Your task to perform on an android device: toggle data saver in the chrome app Image 0: 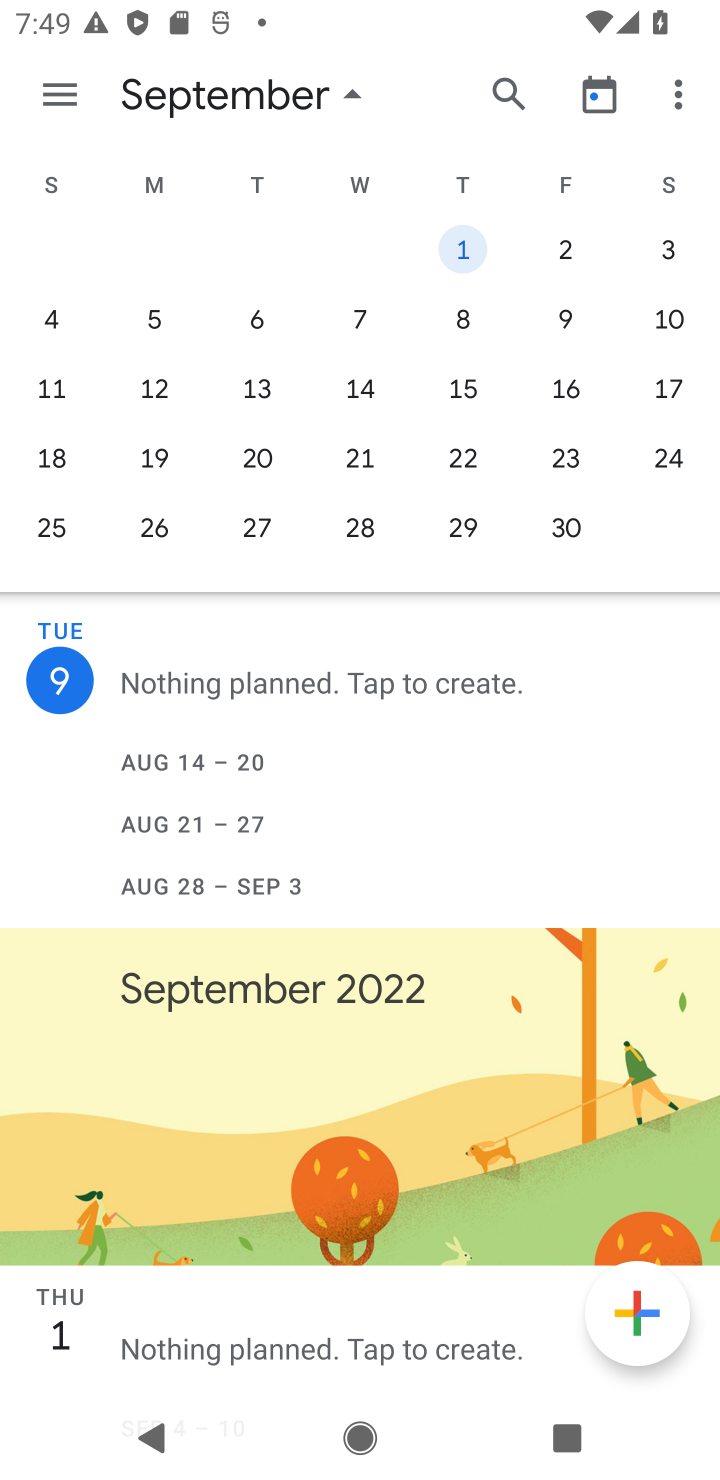
Step 0: press home button
Your task to perform on an android device: toggle data saver in the chrome app Image 1: 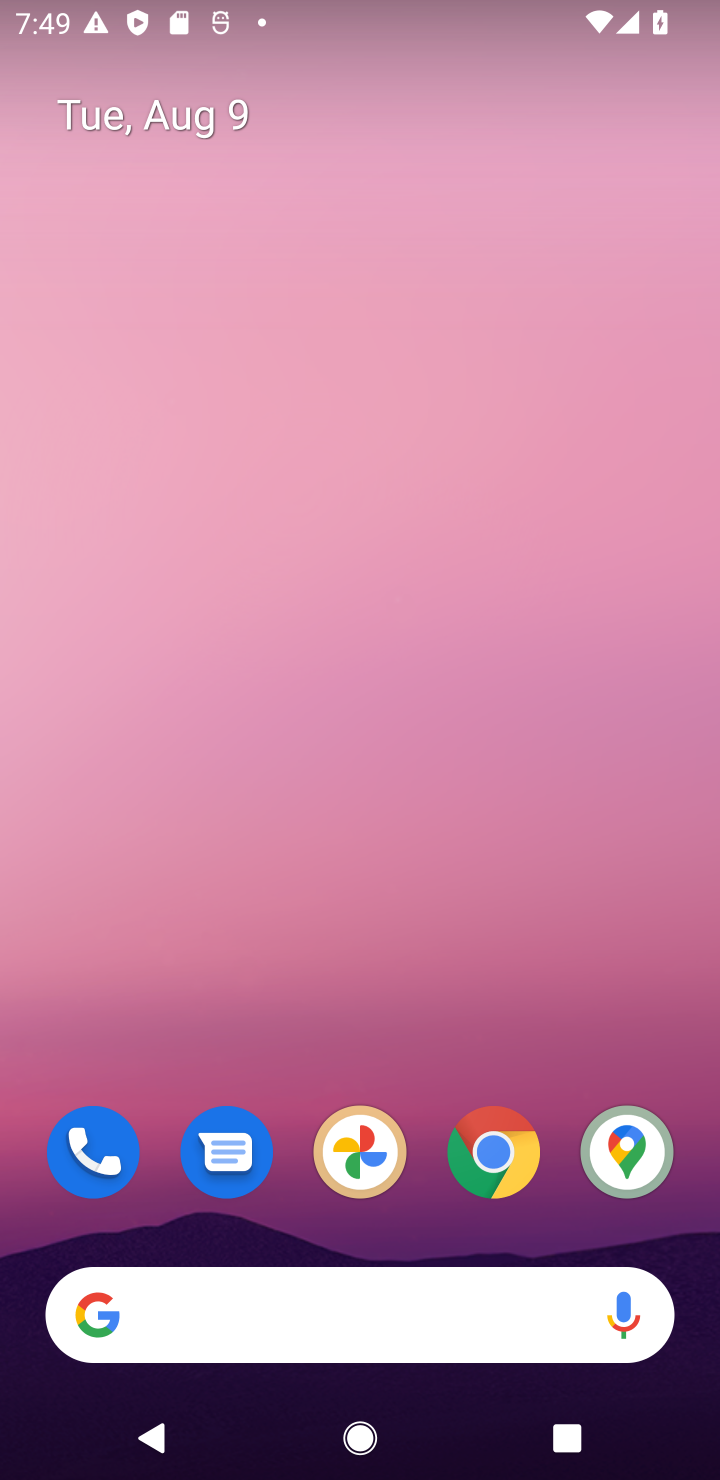
Step 1: click (481, 1153)
Your task to perform on an android device: toggle data saver in the chrome app Image 2: 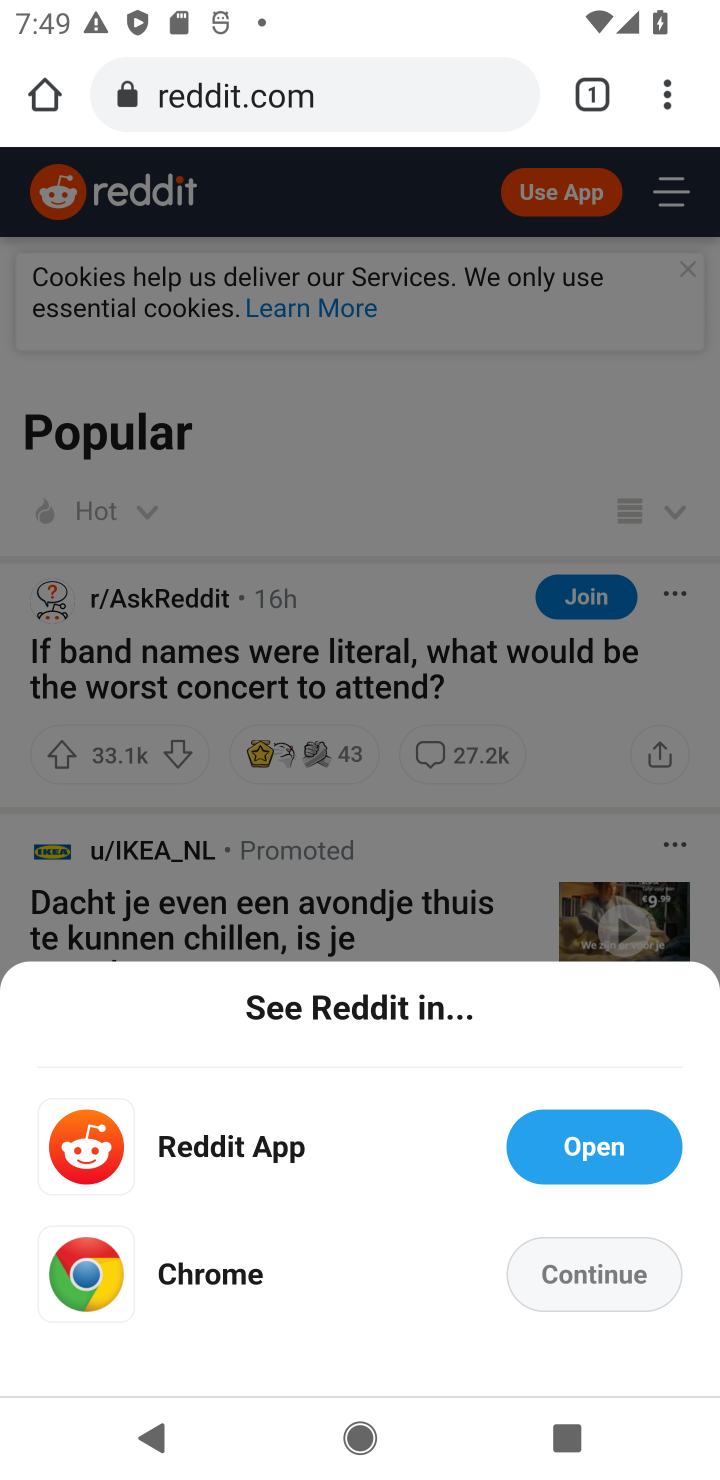
Step 2: click (682, 102)
Your task to perform on an android device: toggle data saver in the chrome app Image 3: 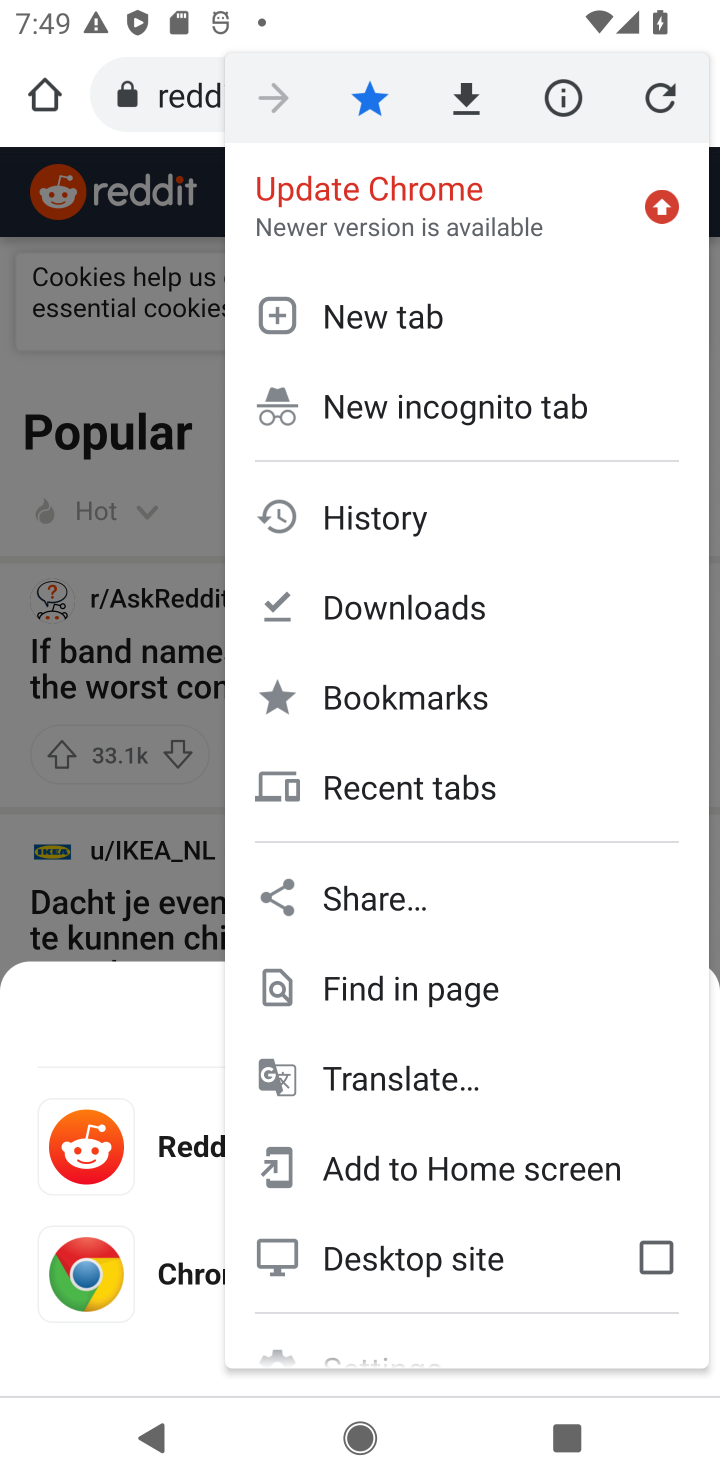
Step 3: drag from (436, 1220) to (575, 402)
Your task to perform on an android device: toggle data saver in the chrome app Image 4: 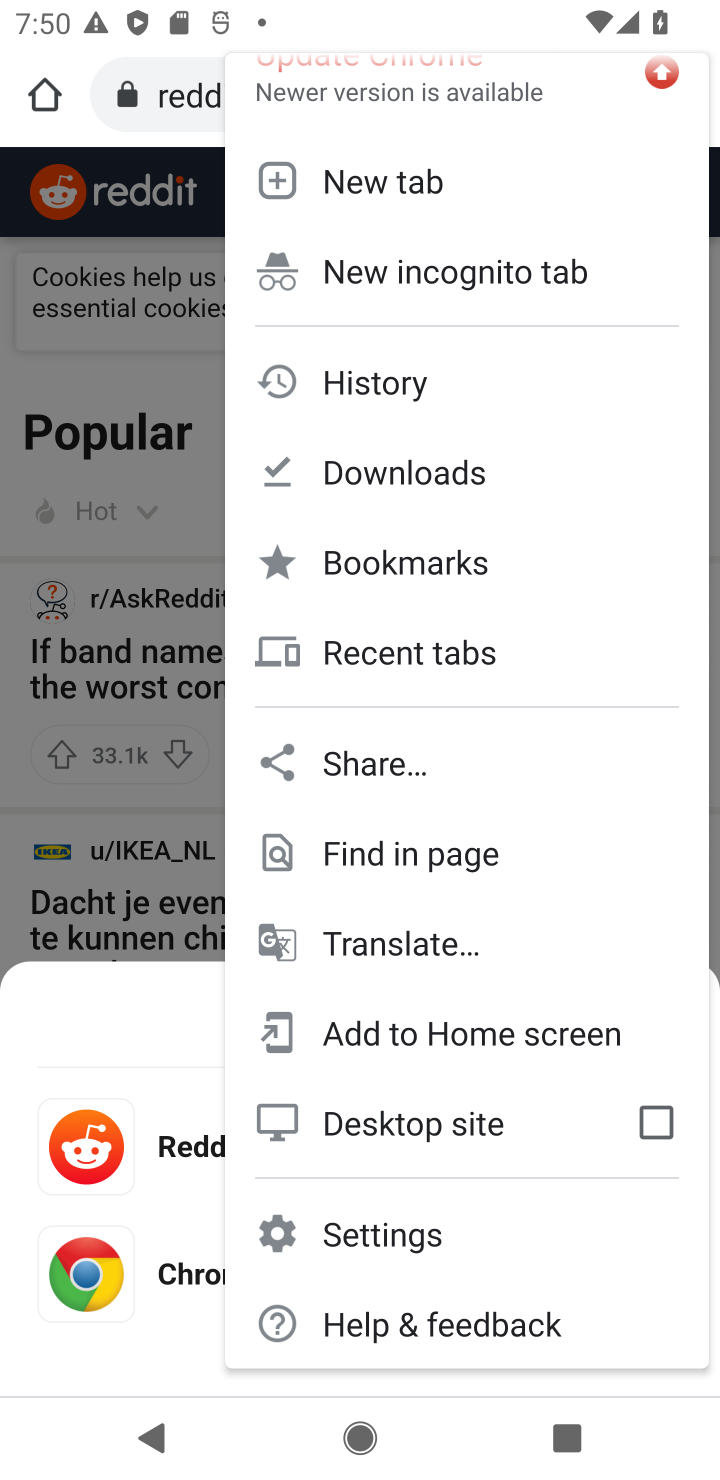
Step 4: click (480, 1236)
Your task to perform on an android device: toggle data saver in the chrome app Image 5: 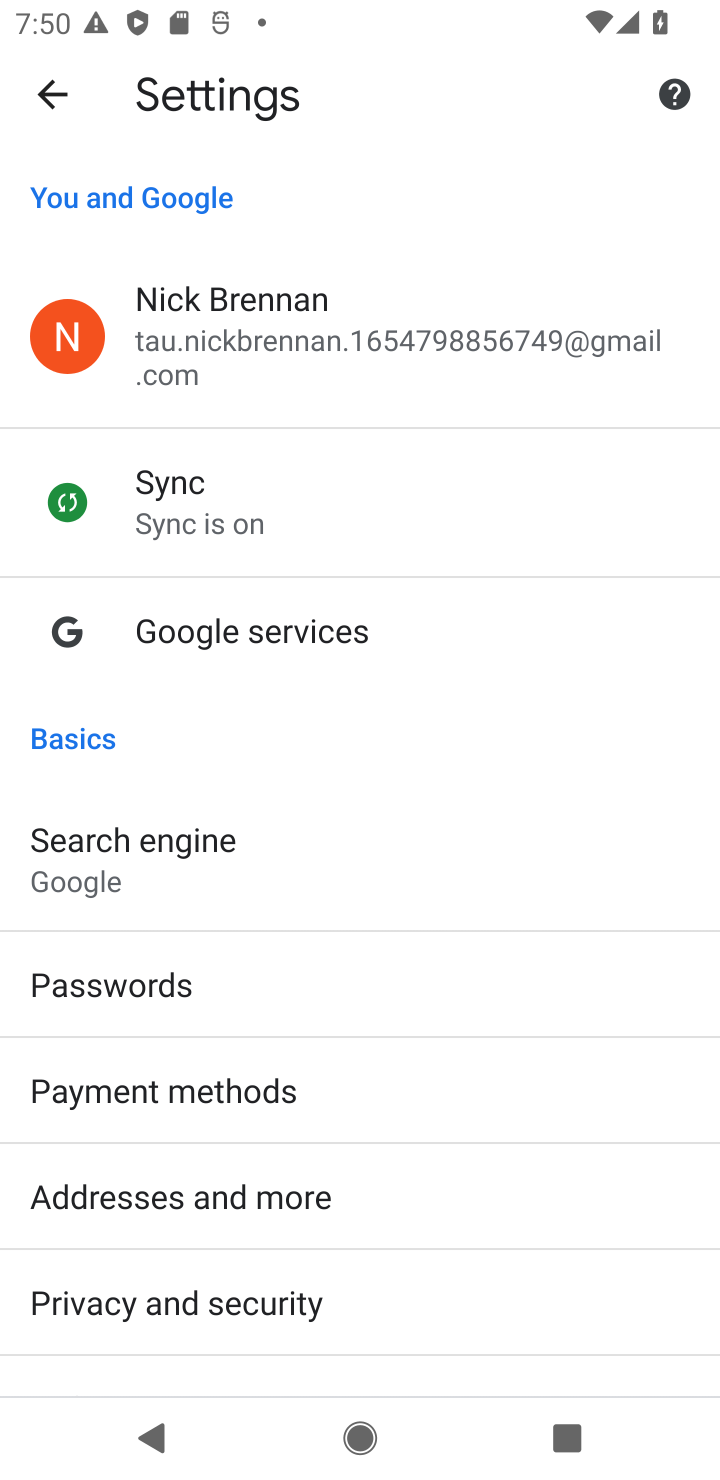
Step 5: drag from (322, 858) to (385, 145)
Your task to perform on an android device: toggle data saver in the chrome app Image 6: 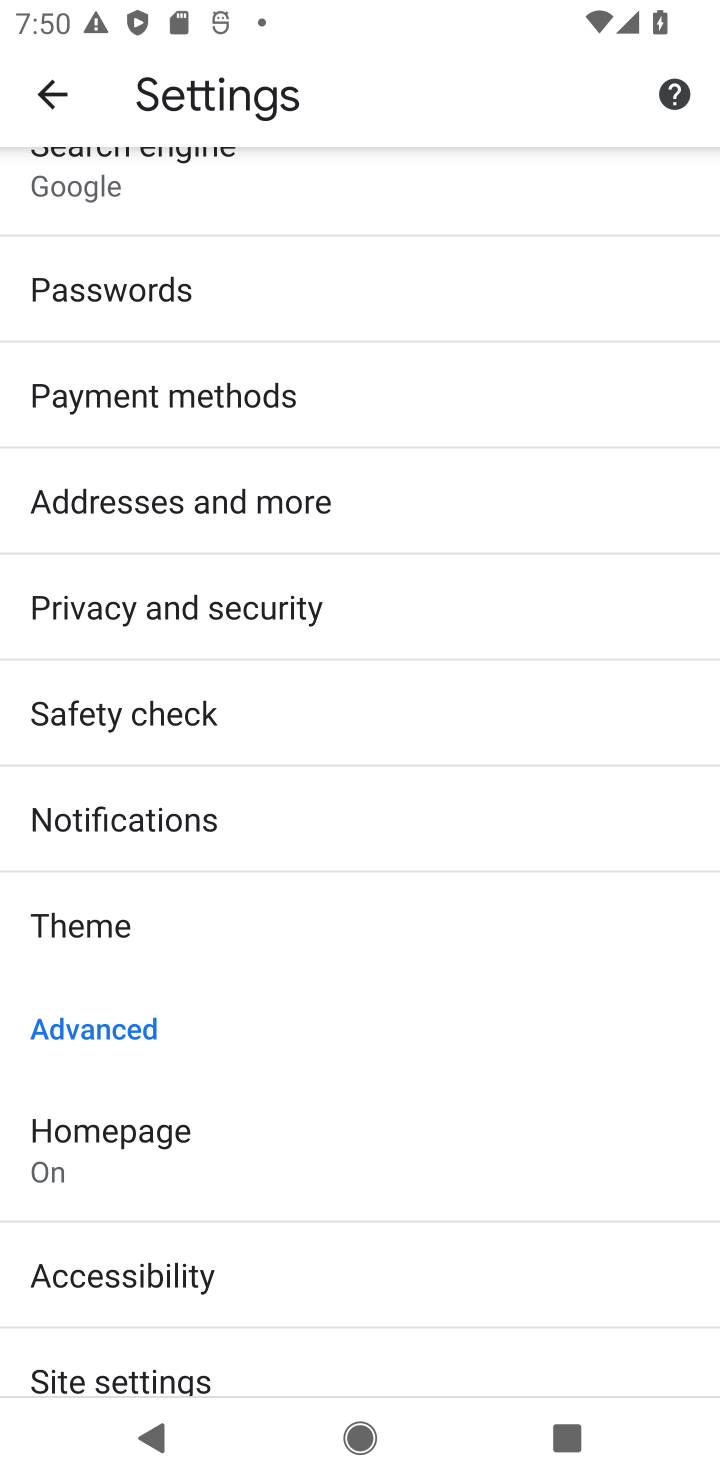
Step 6: drag from (263, 1348) to (334, 658)
Your task to perform on an android device: toggle data saver in the chrome app Image 7: 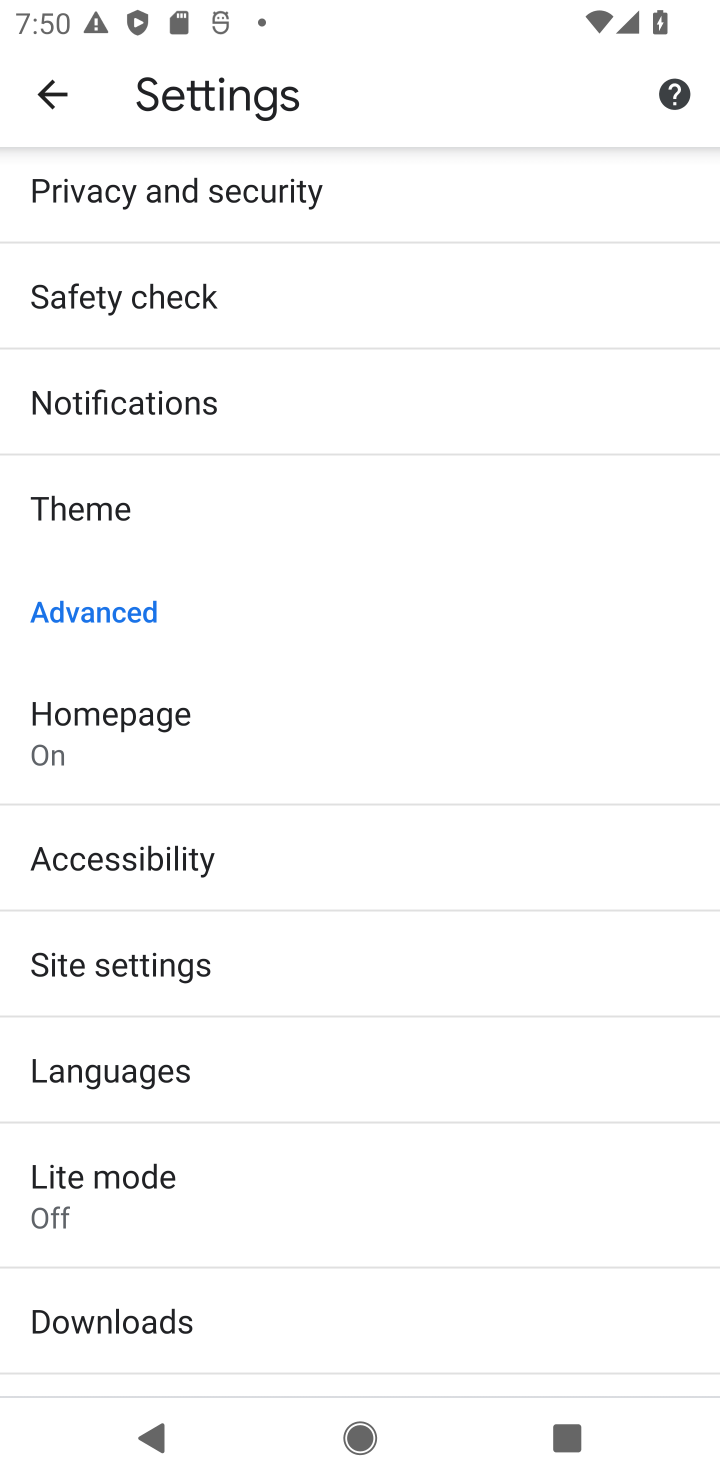
Step 7: drag from (216, 1247) to (377, 602)
Your task to perform on an android device: toggle data saver in the chrome app Image 8: 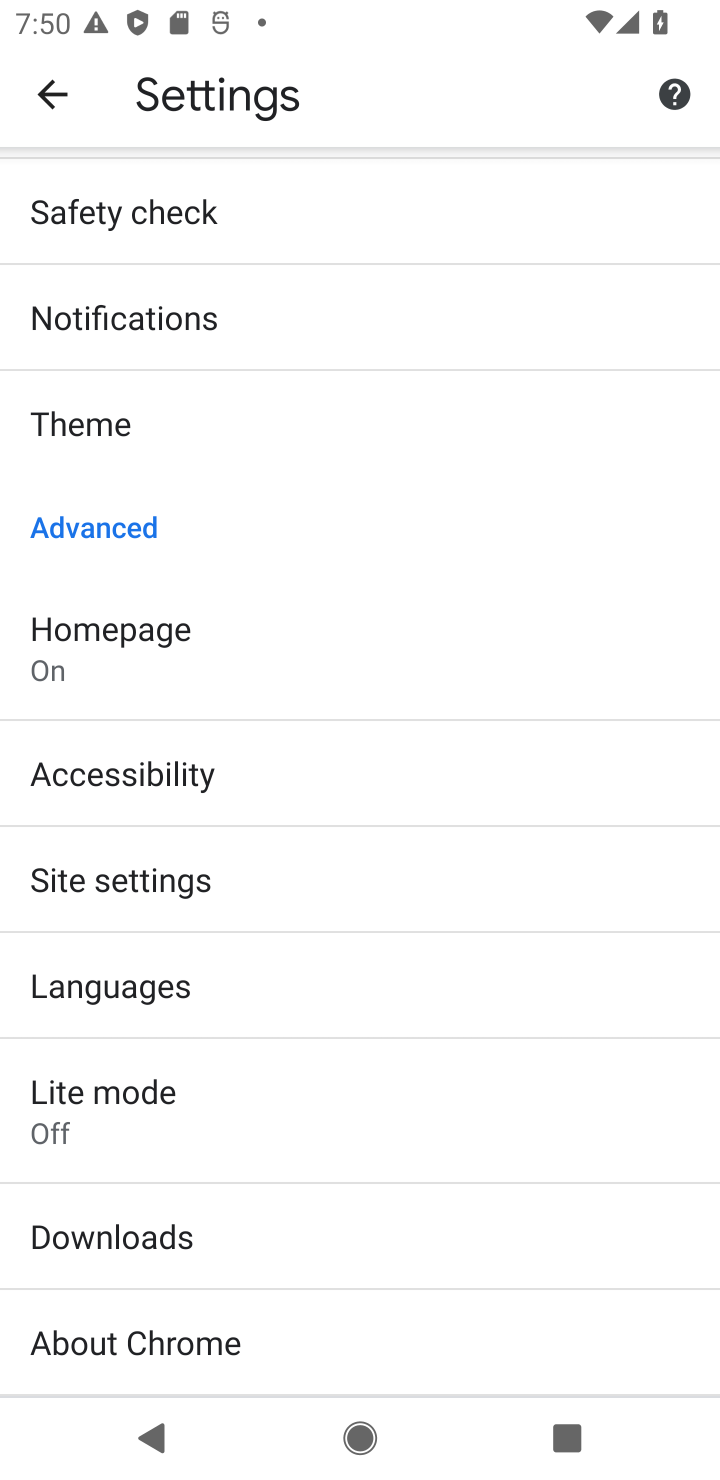
Step 8: click (258, 1146)
Your task to perform on an android device: toggle data saver in the chrome app Image 9: 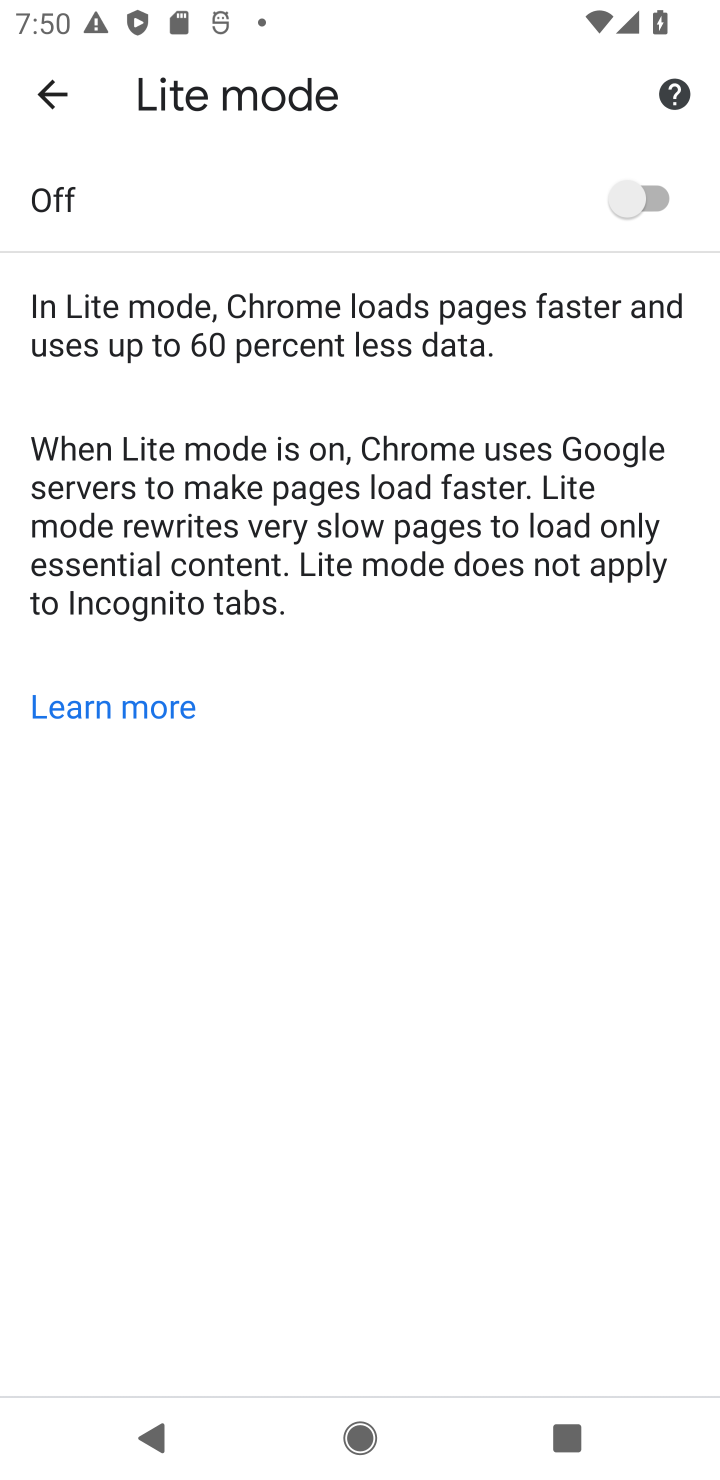
Step 9: click (666, 212)
Your task to perform on an android device: toggle data saver in the chrome app Image 10: 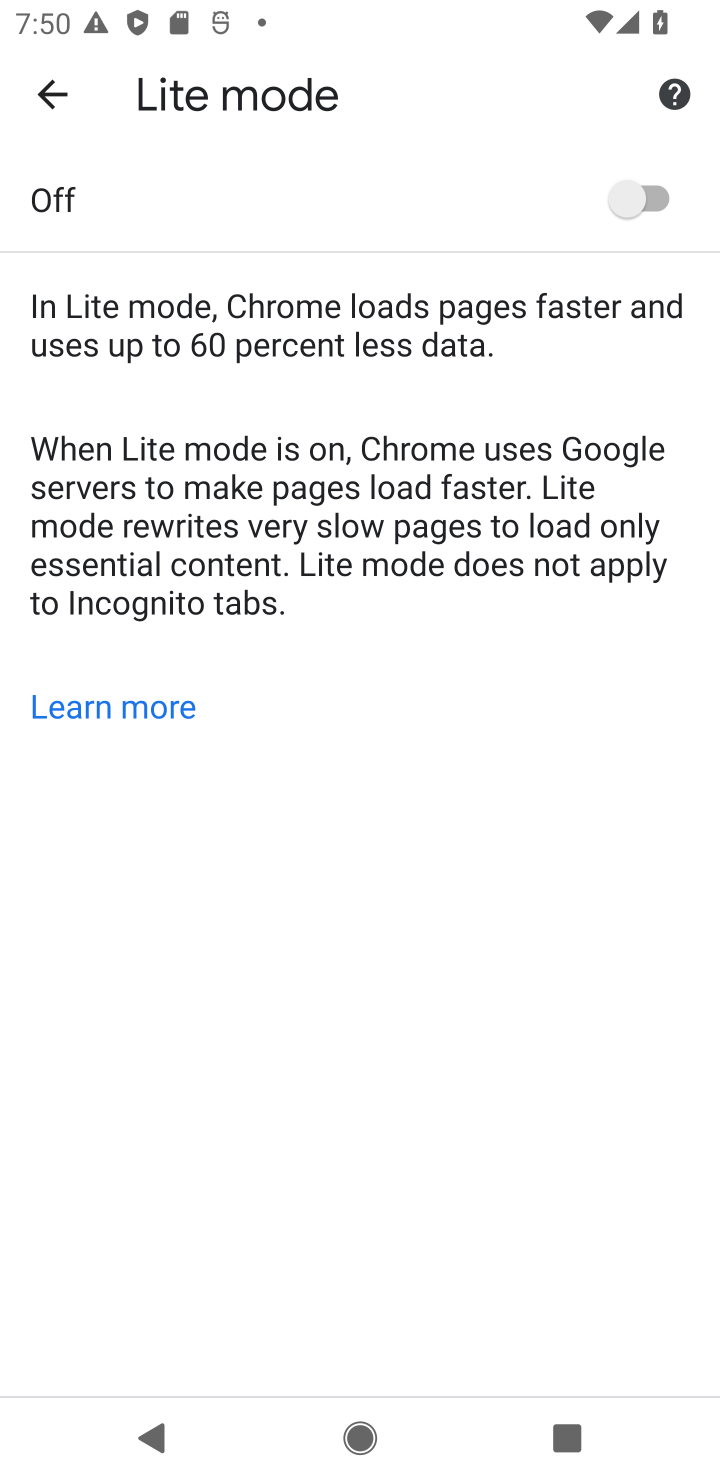
Step 10: click (666, 212)
Your task to perform on an android device: toggle data saver in the chrome app Image 11: 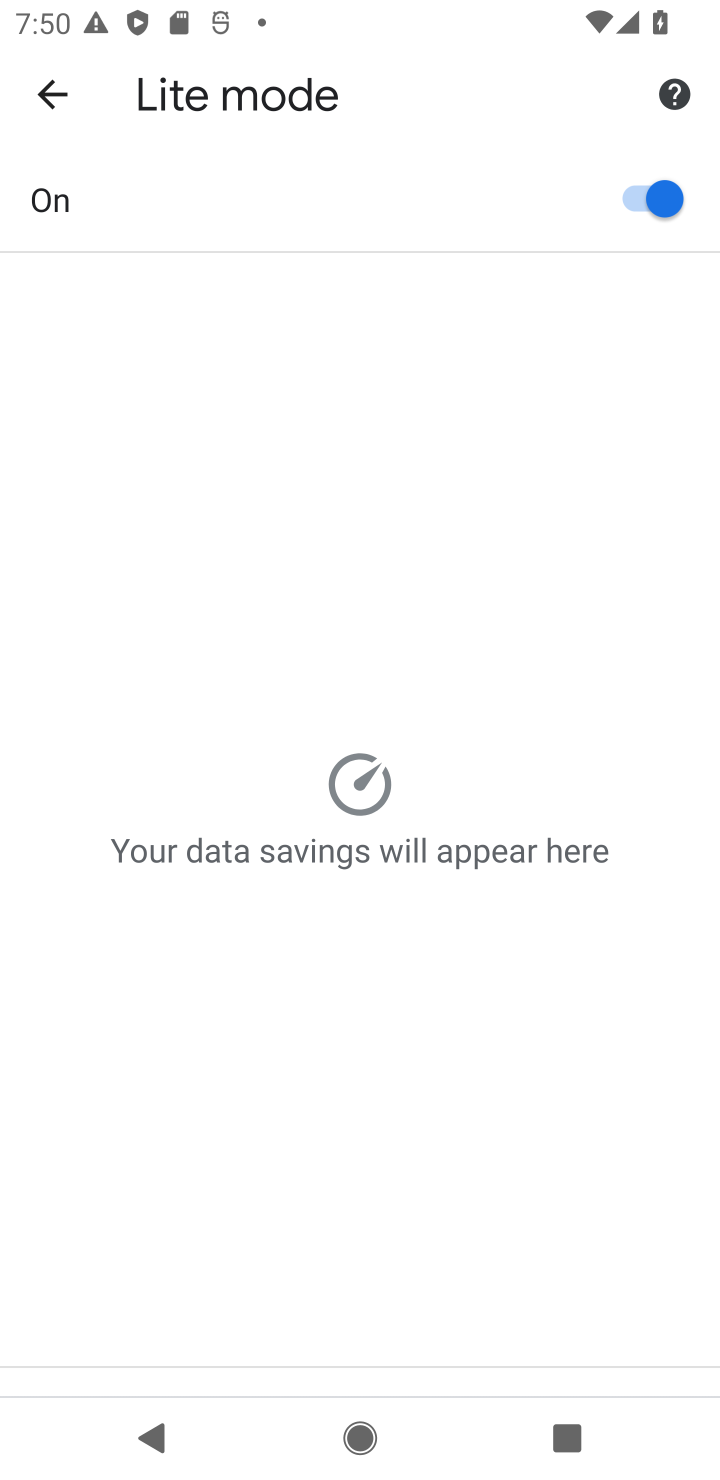
Step 11: click (666, 212)
Your task to perform on an android device: toggle data saver in the chrome app Image 12: 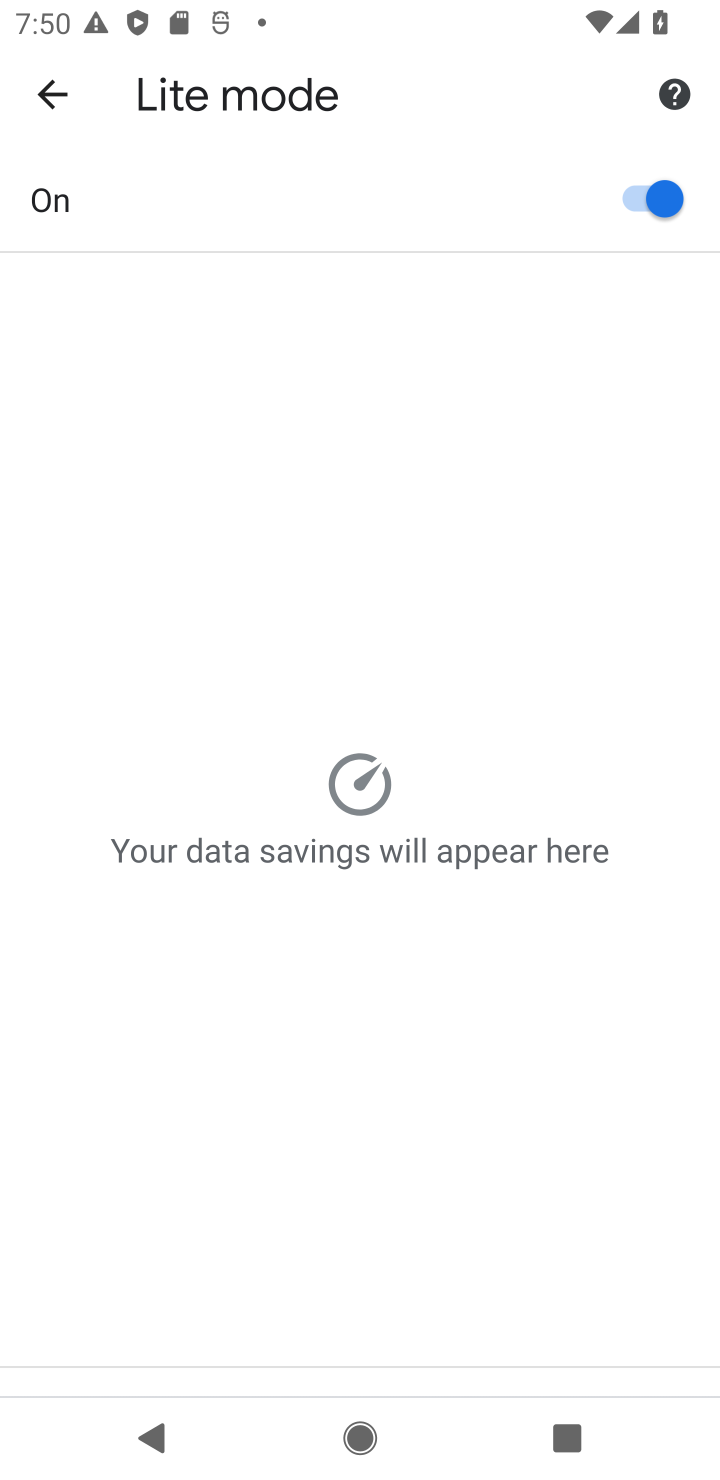
Step 12: click (660, 197)
Your task to perform on an android device: toggle data saver in the chrome app Image 13: 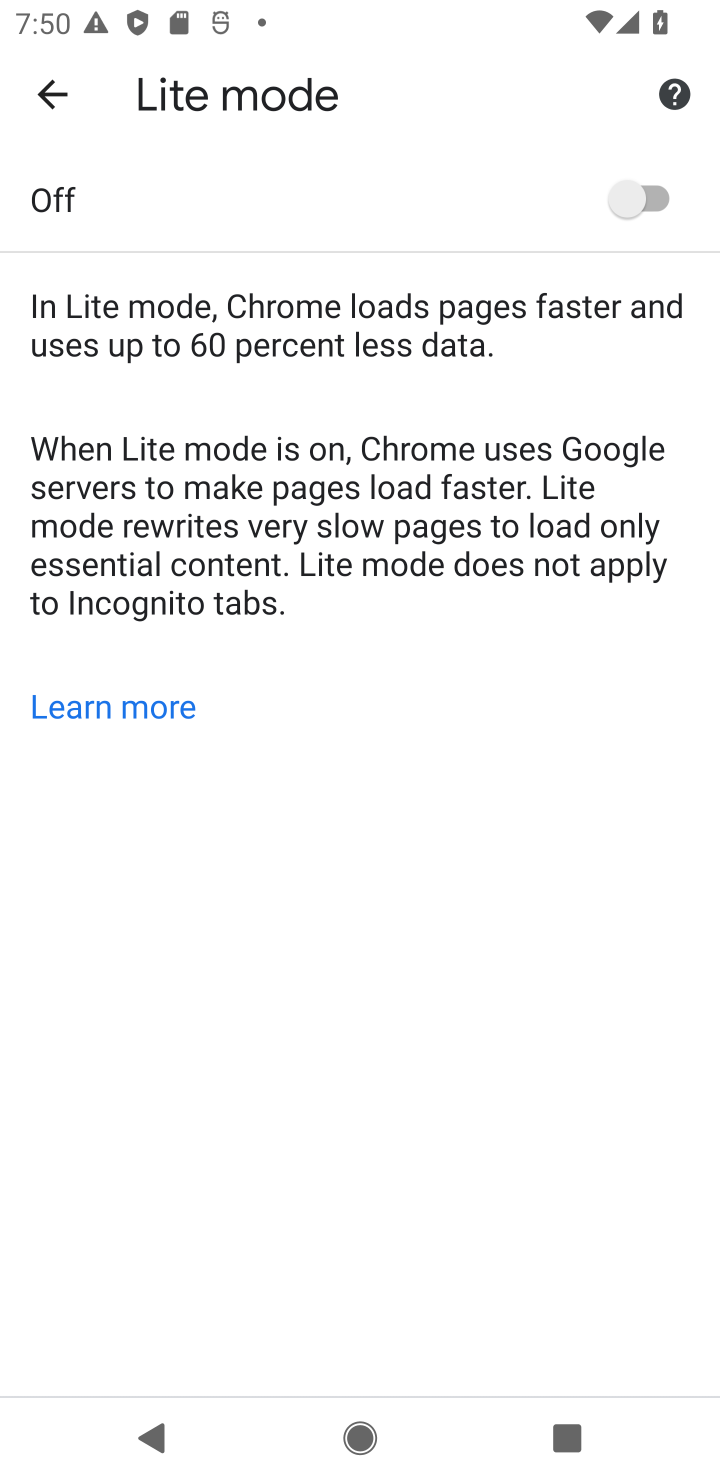
Step 13: task complete